Your task to perform on an android device: Open battery settings Image 0: 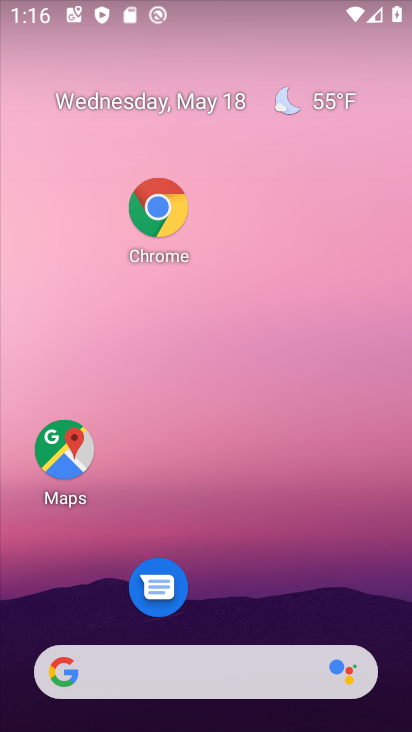
Step 0: drag from (233, 575) to (247, 85)
Your task to perform on an android device: Open battery settings Image 1: 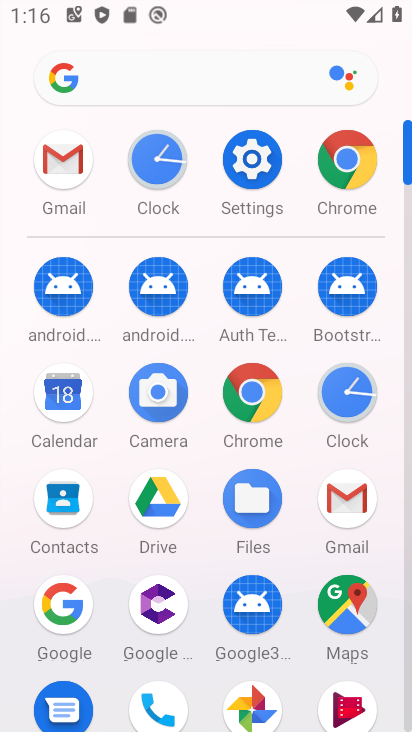
Step 1: click (236, 145)
Your task to perform on an android device: Open battery settings Image 2: 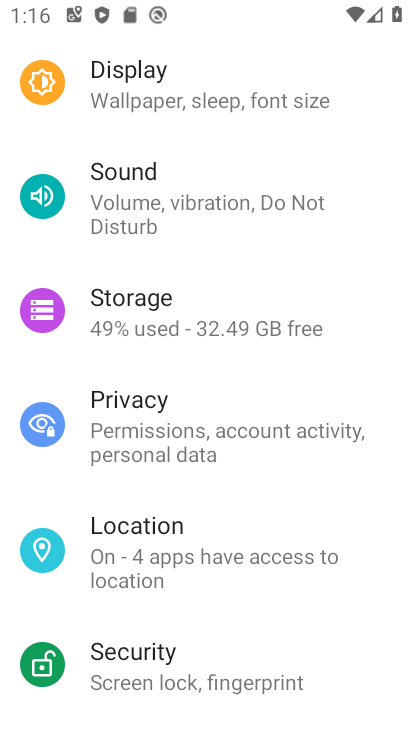
Step 2: drag from (204, 166) to (257, 600)
Your task to perform on an android device: Open battery settings Image 3: 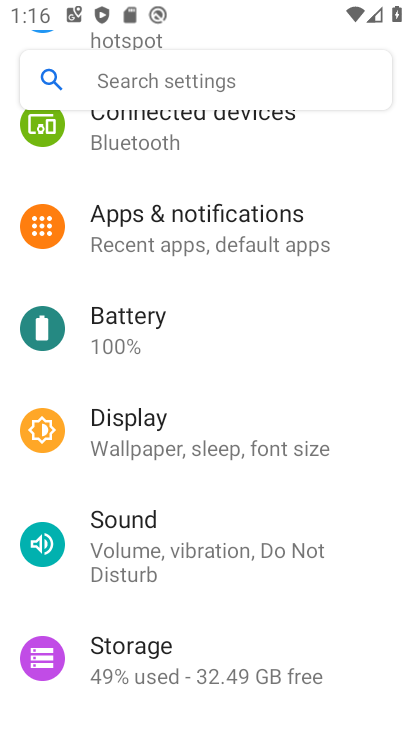
Step 3: click (140, 351)
Your task to perform on an android device: Open battery settings Image 4: 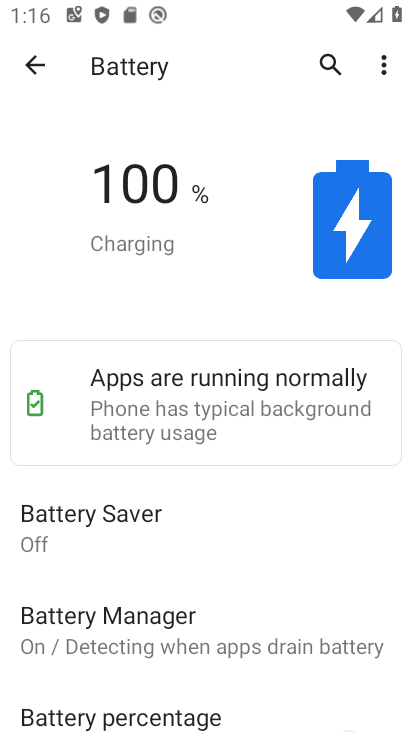
Step 4: task complete